Your task to perform on an android device: change your default location settings in chrome Image 0: 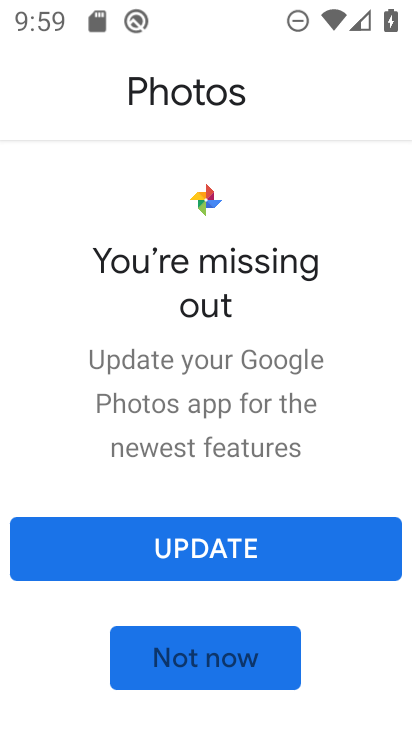
Step 0: click (238, 547)
Your task to perform on an android device: change your default location settings in chrome Image 1: 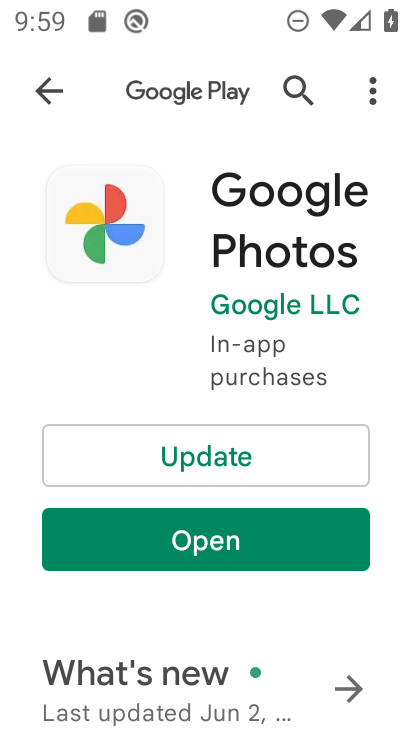
Step 1: press home button
Your task to perform on an android device: change your default location settings in chrome Image 2: 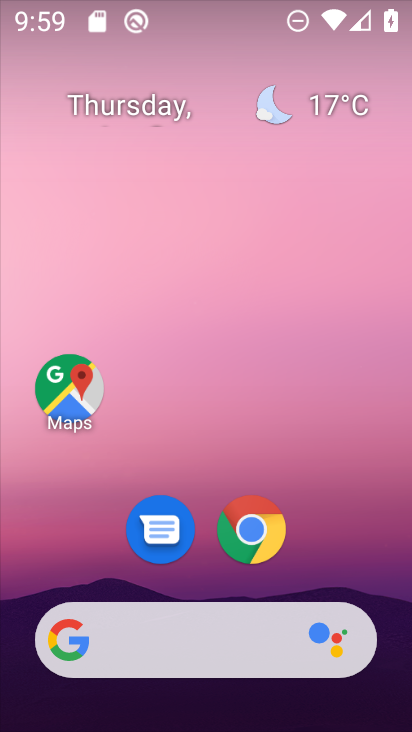
Step 2: click (249, 532)
Your task to perform on an android device: change your default location settings in chrome Image 3: 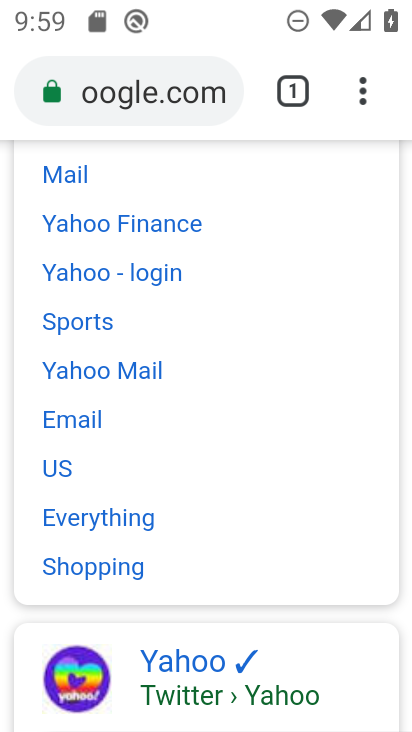
Step 3: drag from (271, 308) to (255, 603)
Your task to perform on an android device: change your default location settings in chrome Image 4: 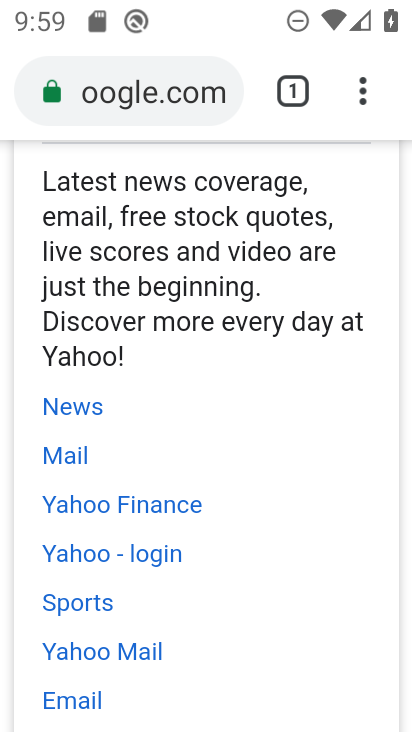
Step 4: press back button
Your task to perform on an android device: change your default location settings in chrome Image 5: 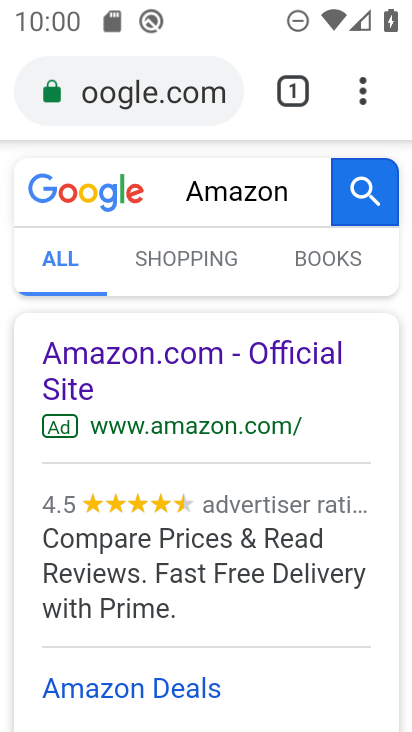
Step 5: click (360, 91)
Your task to perform on an android device: change your default location settings in chrome Image 6: 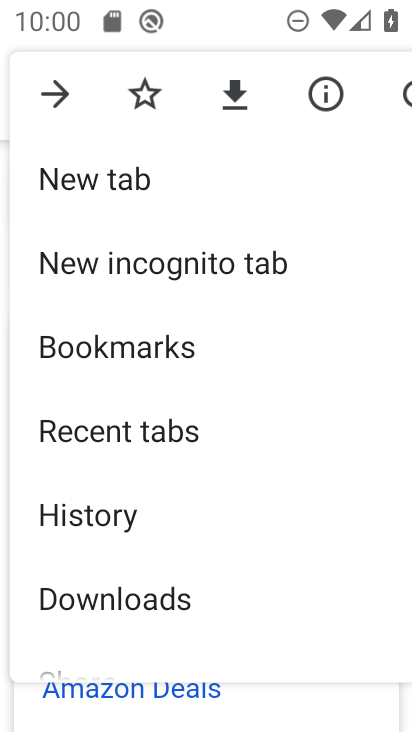
Step 6: drag from (254, 588) to (249, 258)
Your task to perform on an android device: change your default location settings in chrome Image 7: 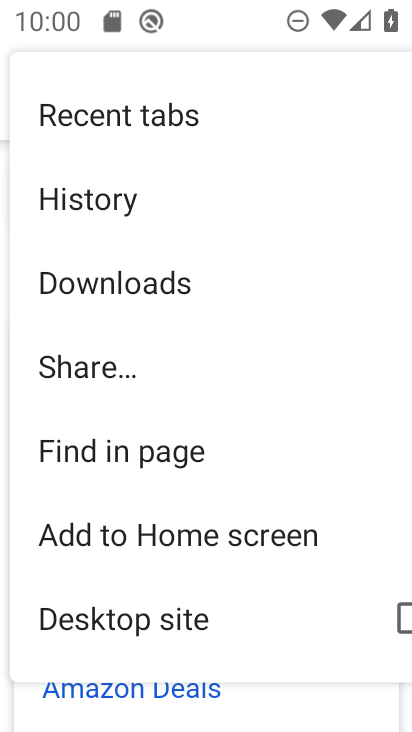
Step 7: drag from (296, 585) to (318, 389)
Your task to perform on an android device: change your default location settings in chrome Image 8: 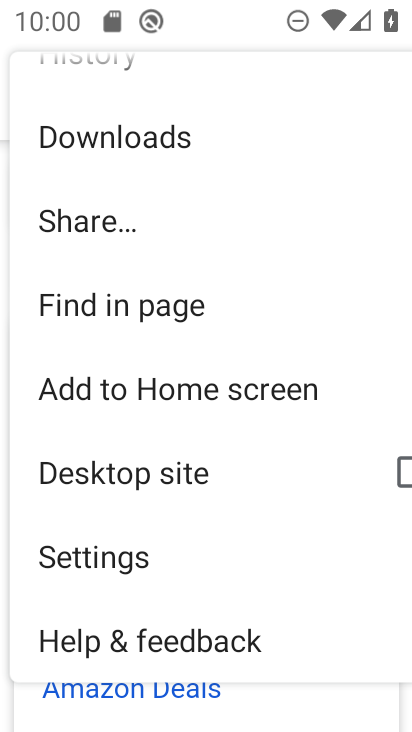
Step 8: click (96, 565)
Your task to perform on an android device: change your default location settings in chrome Image 9: 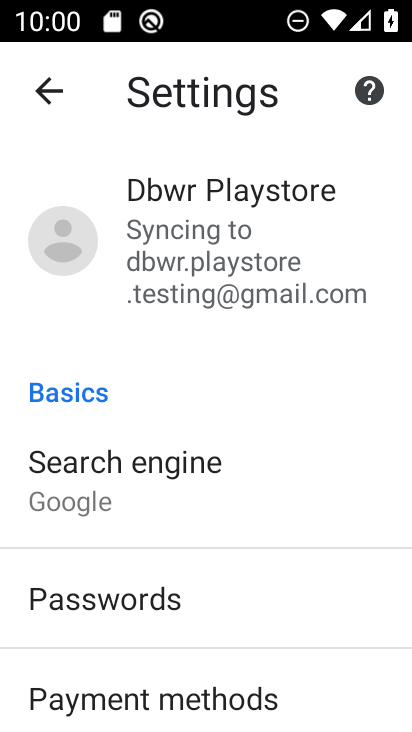
Step 9: drag from (303, 644) to (301, 178)
Your task to perform on an android device: change your default location settings in chrome Image 10: 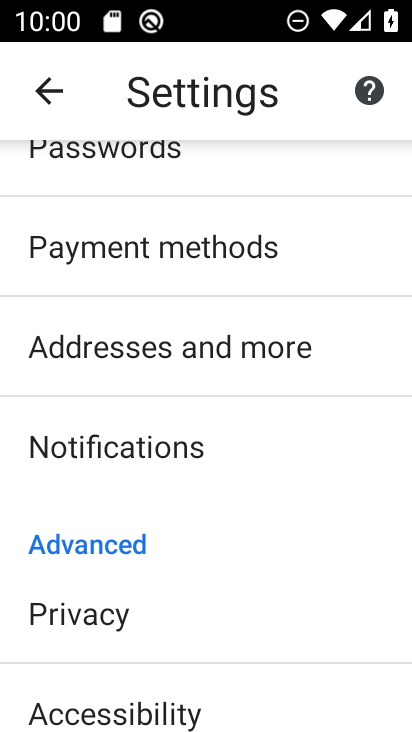
Step 10: drag from (305, 676) to (295, 354)
Your task to perform on an android device: change your default location settings in chrome Image 11: 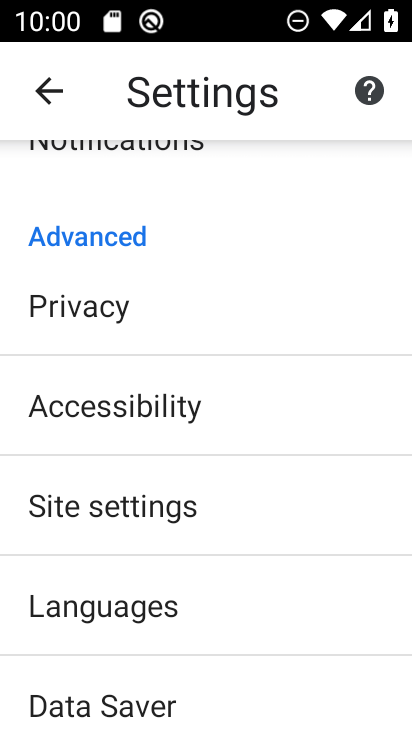
Step 11: click (140, 509)
Your task to perform on an android device: change your default location settings in chrome Image 12: 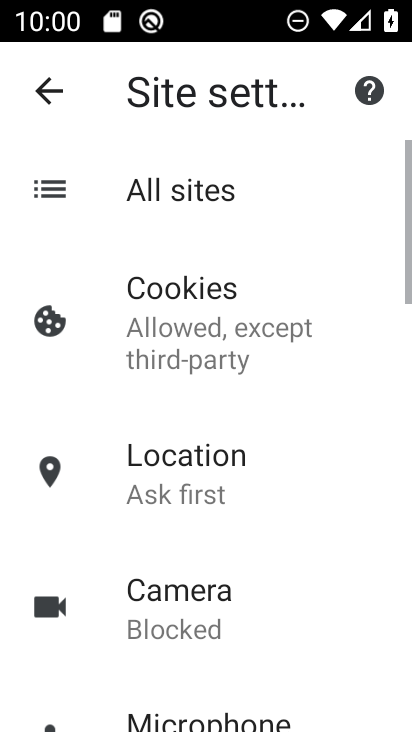
Step 12: click (155, 475)
Your task to perform on an android device: change your default location settings in chrome Image 13: 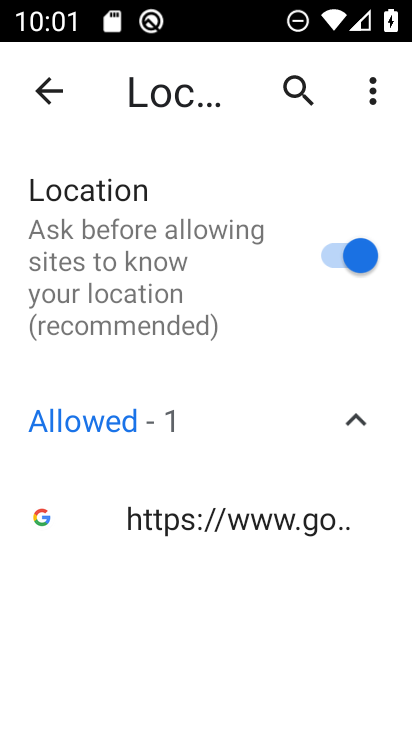
Step 13: click (339, 263)
Your task to perform on an android device: change your default location settings in chrome Image 14: 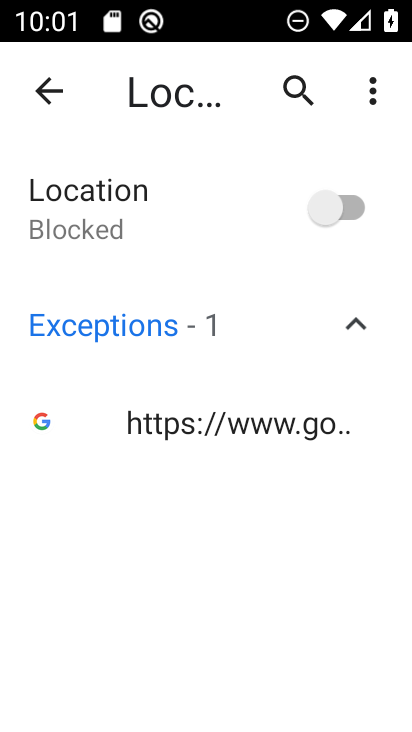
Step 14: task complete